Your task to perform on an android device: Go to Yahoo.com Image 0: 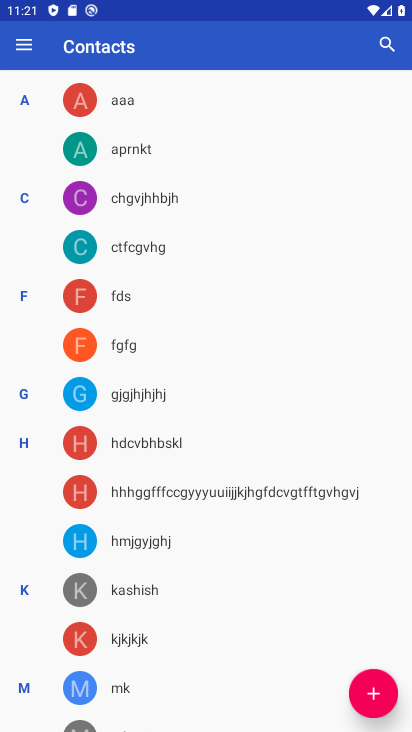
Step 0: press home button
Your task to perform on an android device: Go to Yahoo.com Image 1: 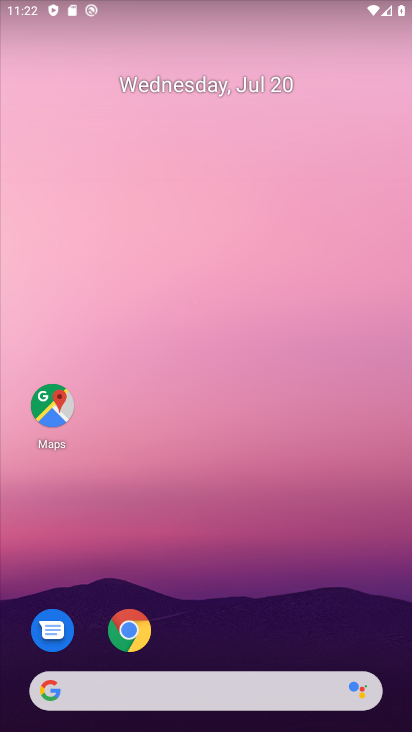
Step 1: click (103, 690)
Your task to perform on an android device: Go to Yahoo.com Image 2: 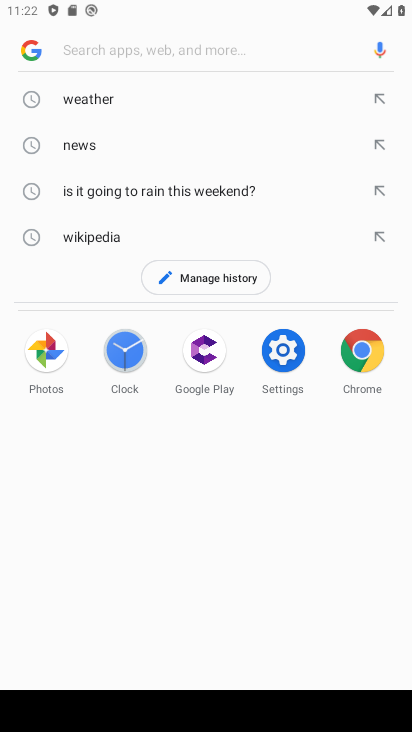
Step 2: type "Yahoo.com"
Your task to perform on an android device: Go to Yahoo.com Image 3: 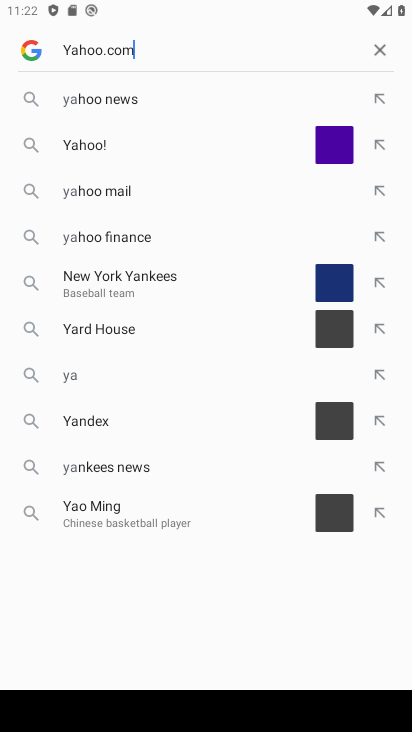
Step 3: type ""
Your task to perform on an android device: Go to Yahoo.com Image 4: 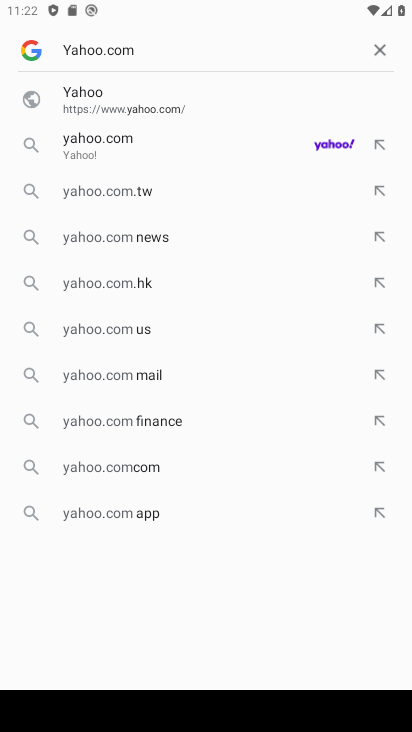
Step 4: click (104, 101)
Your task to perform on an android device: Go to Yahoo.com Image 5: 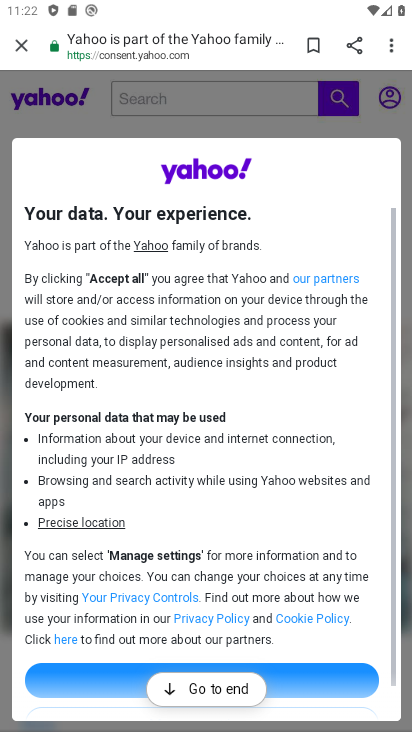
Step 5: task complete